Your task to perform on an android device: Go to Amazon Image 0: 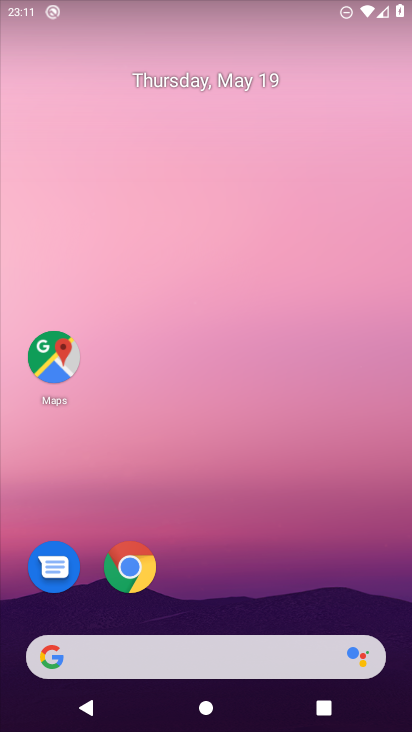
Step 0: press home button
Your task to perform on an android device: Go to Amazon Image 1: 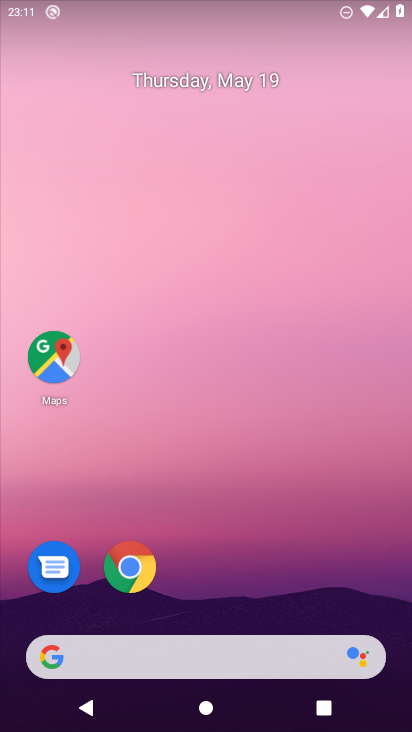
Step 1: click (127, 563)
Your task to perform on an android device: Go to Amazon Image 2: 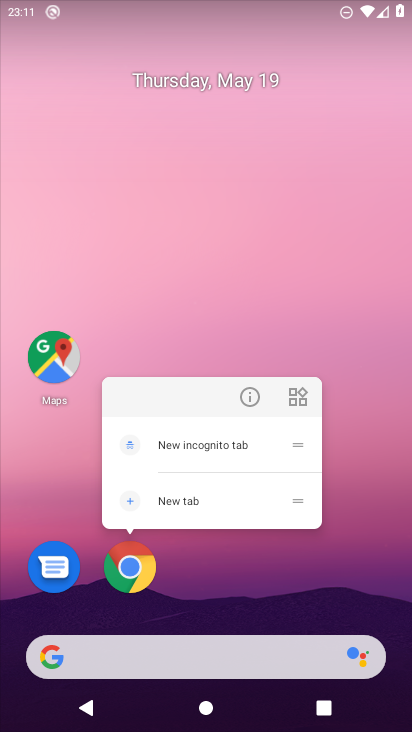
Step 2: click (127, 563)
Your task to perform on an android device: Go to Amazon Image 3: 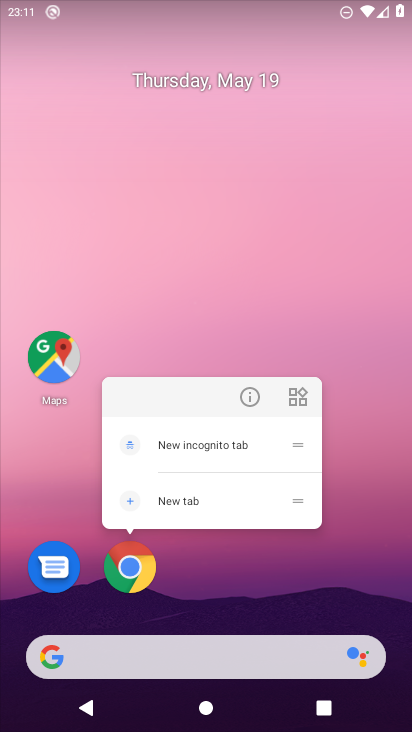
Step 3: click (127, 563)
Your task to perform on an android device: Go to Amazon Image 4: 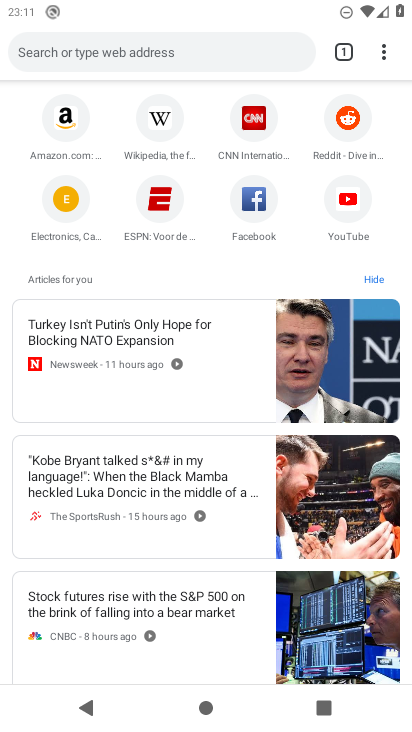
Step 4: click (55, 108)
Your task to perform on an android device: Go to Amazon Image 5: 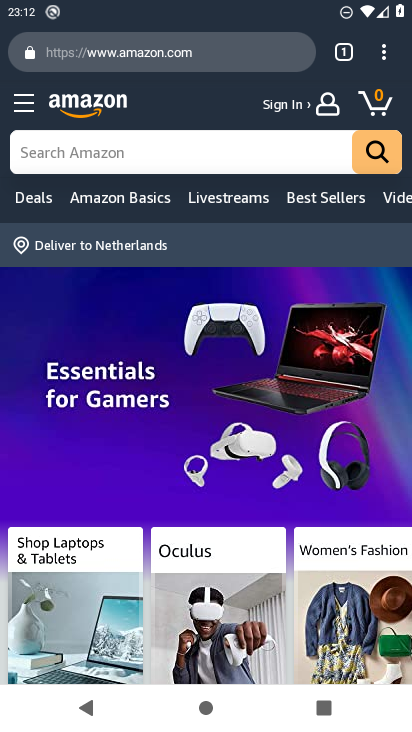
Step 5: task complete